Your task to perform on an android device: Go to wifi settings Image 0: 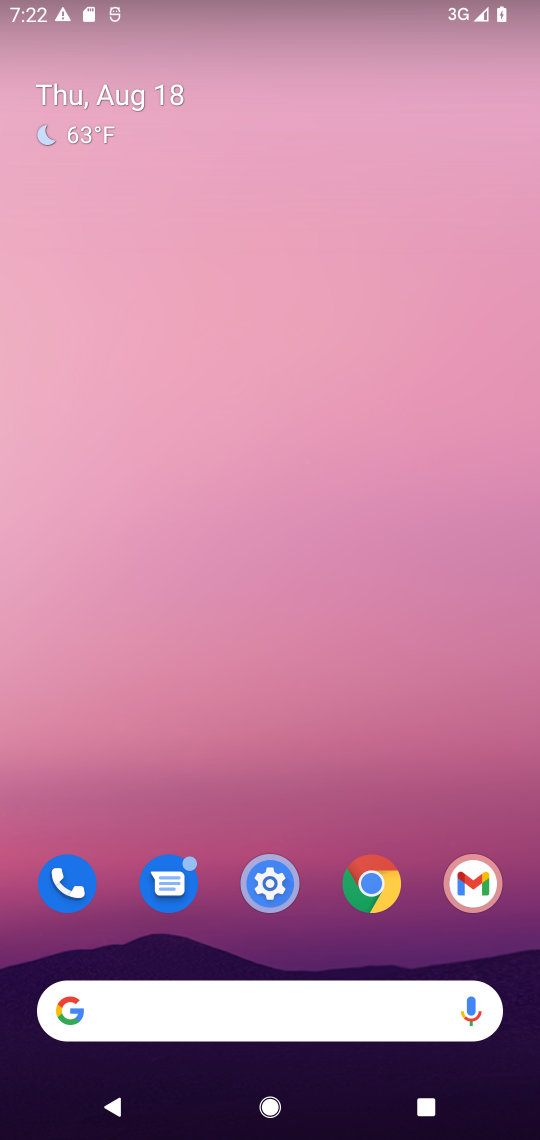
Step 0: drag from (41, 1107) to (224, 306)
Your task to perform on an android device: Go to wifi settings Image 1: 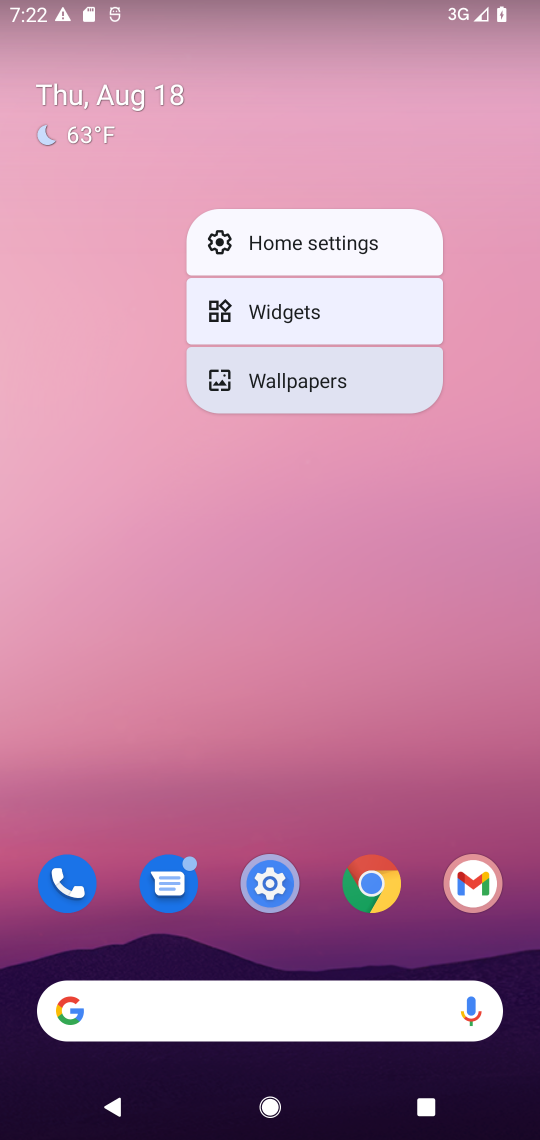
Step 1: drag from (26, 1104) to (60, 249)
Your task to perform on an android device: Go to wifi settings Image 2: 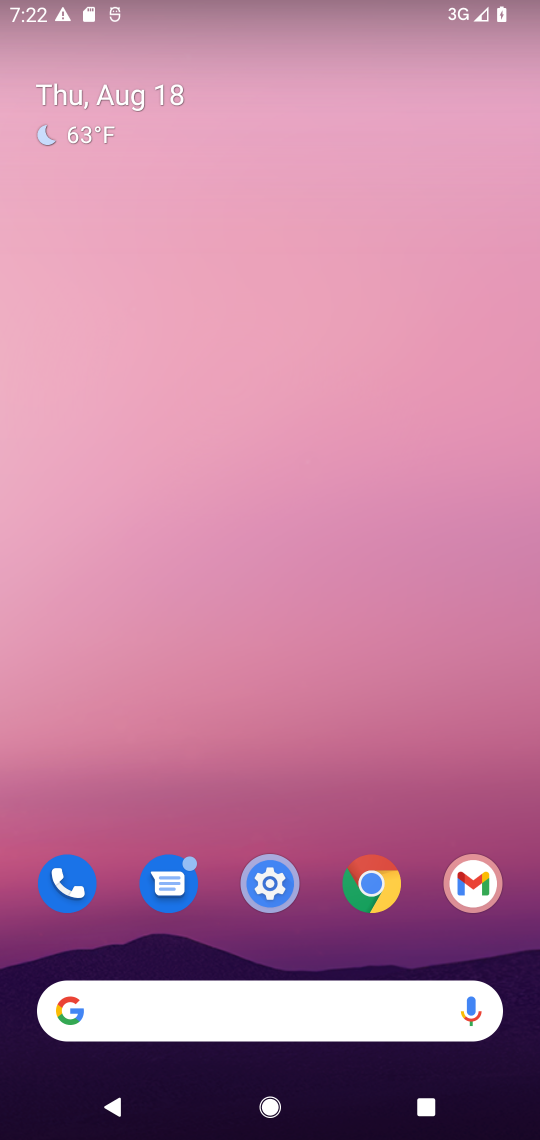
Step 2: click (255, 915)
Your task to perform on an android device: Go to wifi settings Image 3: 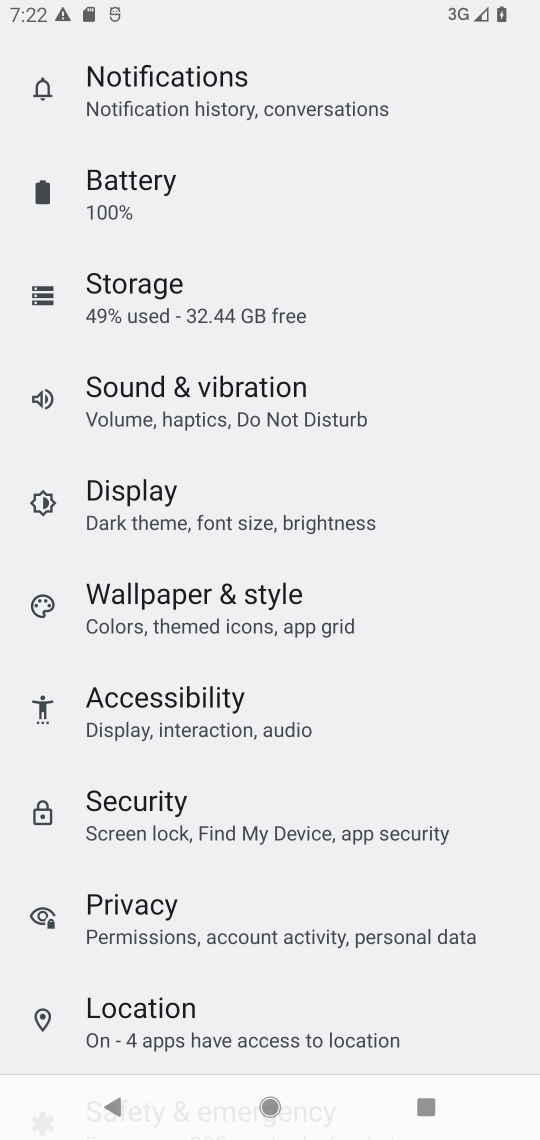
Step 3: drag from (413, 100) to (378, 701)
Your task to perform on an android device: Go to wifi settings Image 4: 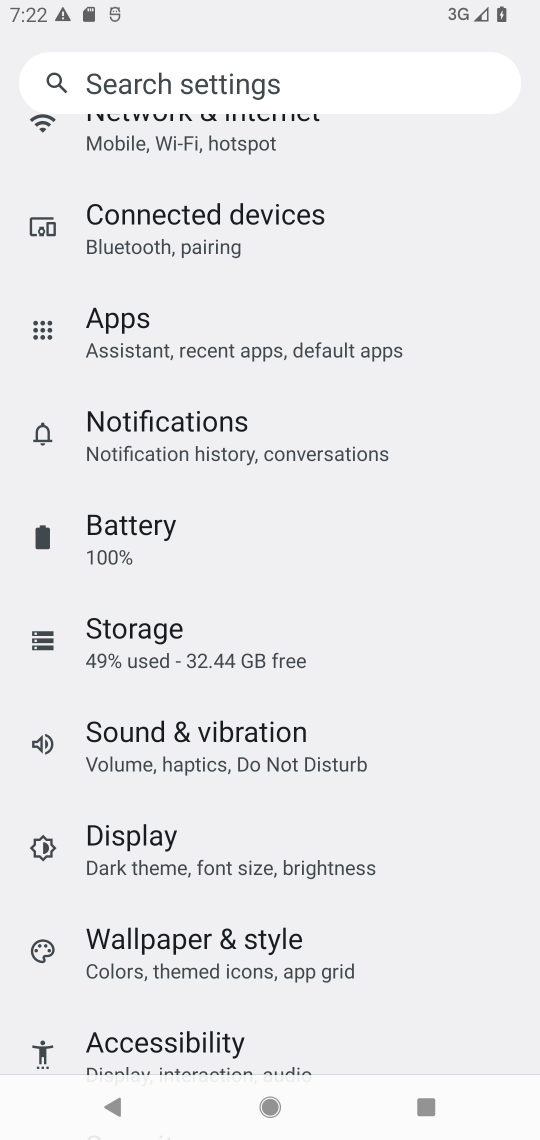
Step 4: drag from (438, 183) to (486, 946)
Your task to perform on an android device: Go to wifi settings Image 5: 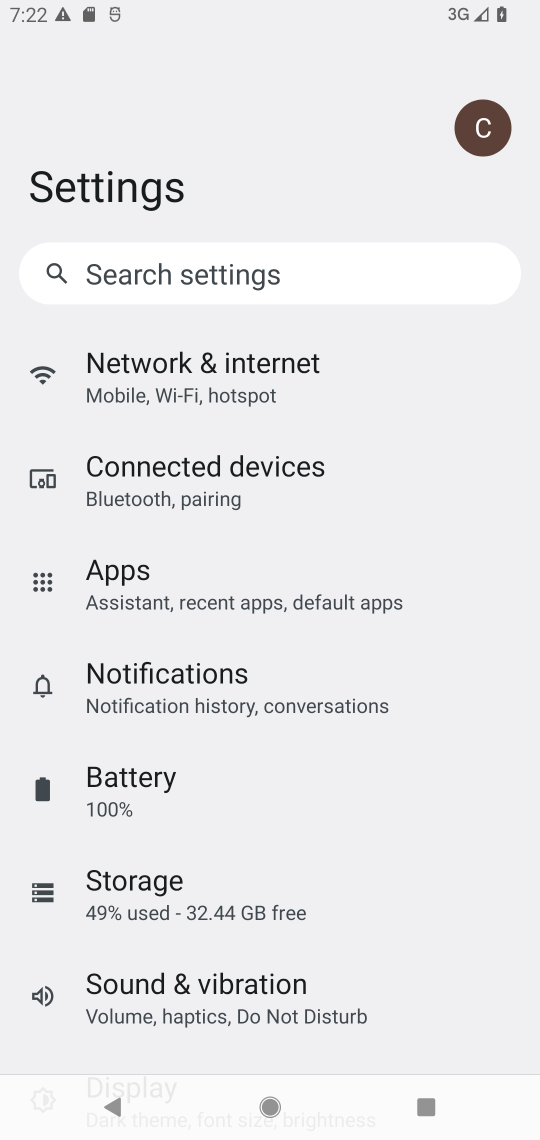
Step 5: click (202, 404)
Your task to perform on an android device: Go to wifi settings Image 6: 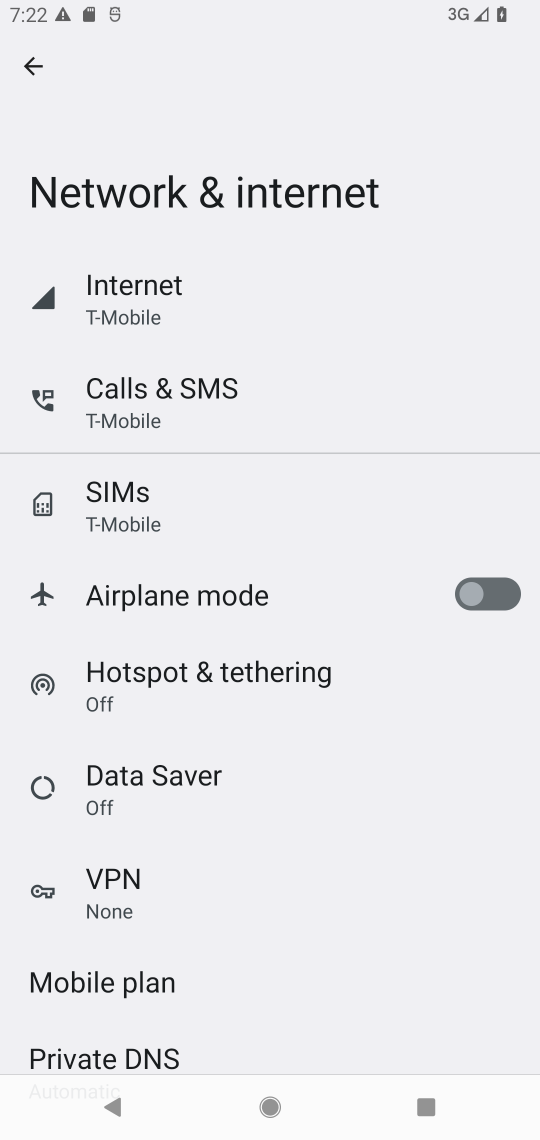
Step 6: click (199, 305)
Your task to perform on an android device: Go to wifi settings Image 7: 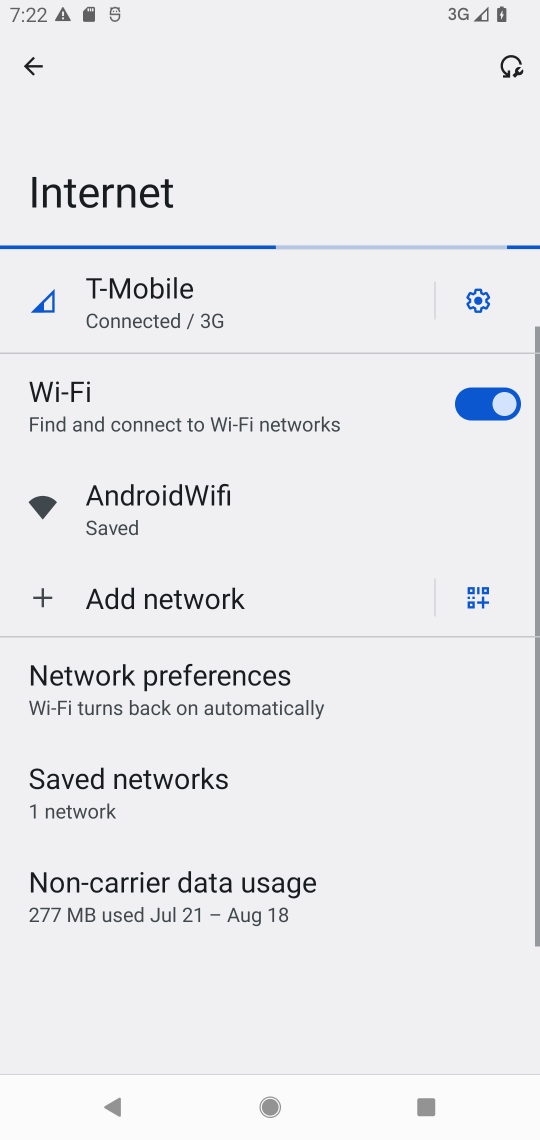
Step 7: task complete